Your task to perform on an android device: Open settings on Google Maps Image 0: 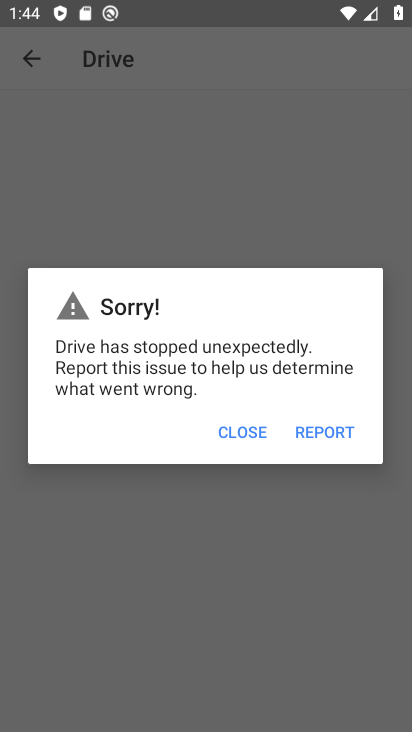
Step 0: press home button
Your task to perform on an android device: Open settings on Google Maps Image 1: 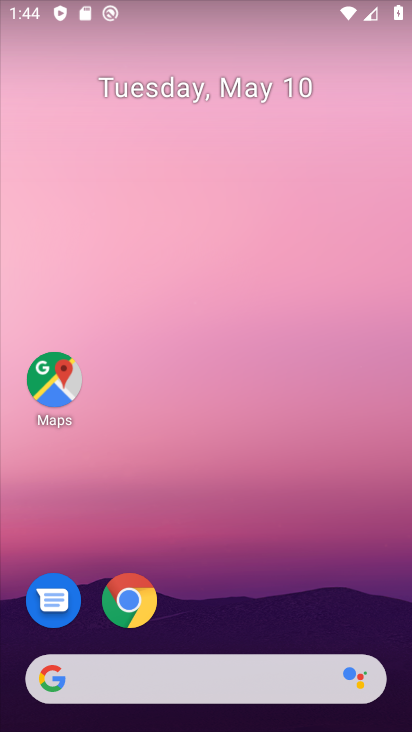
Step 1: drag from (187, 609) to (269, 180)
Your task to perform on an android device: Open settings on Google Maps Image 2: 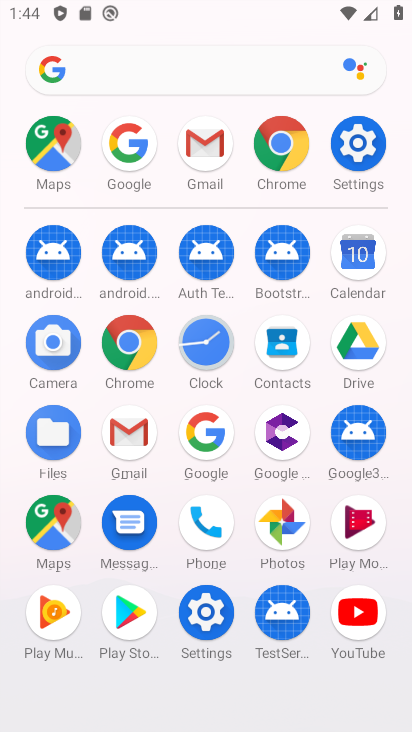
Step 2: click (68, 544)
Your task to perform on an android device: Open settings on Google Maps Image 3: 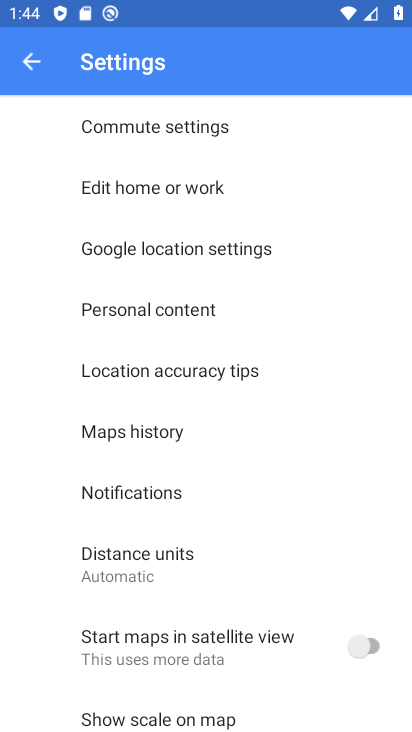
Step 3: task complete